Your task to perform on an android device: Open Google Image 0: 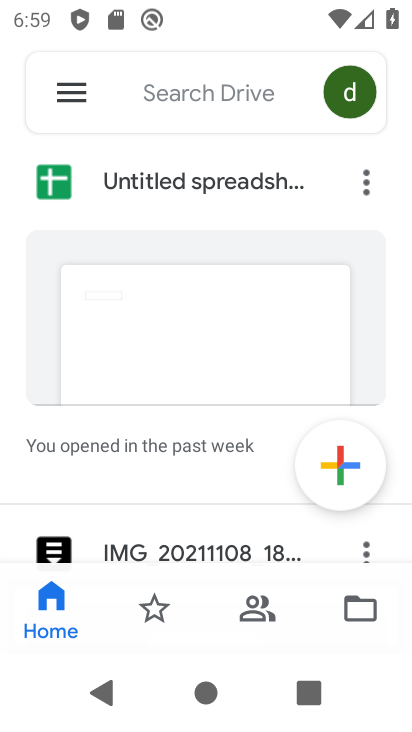
Step 0: press home button
Your task to perform on an android device: Open Google Image 1: 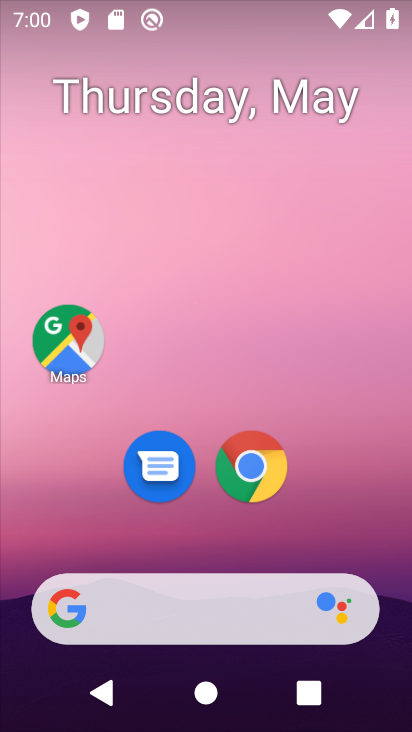
Step 1: click (52, 598)
Your task to perform on an android device: Open Google Image 2: 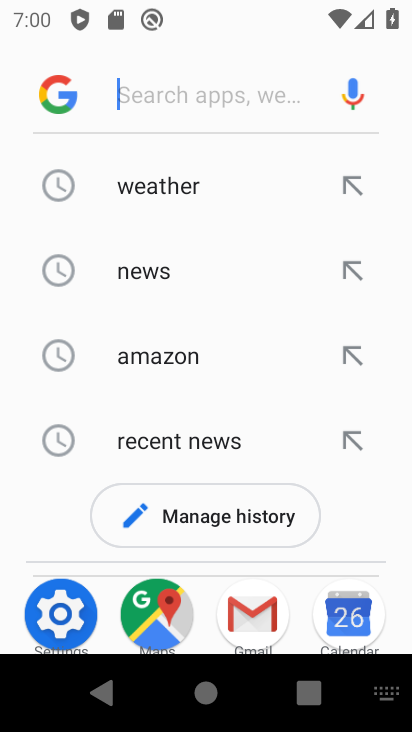
Step 2: click (56, 95)
Your task to perform on an android device: Open Google Image 3: 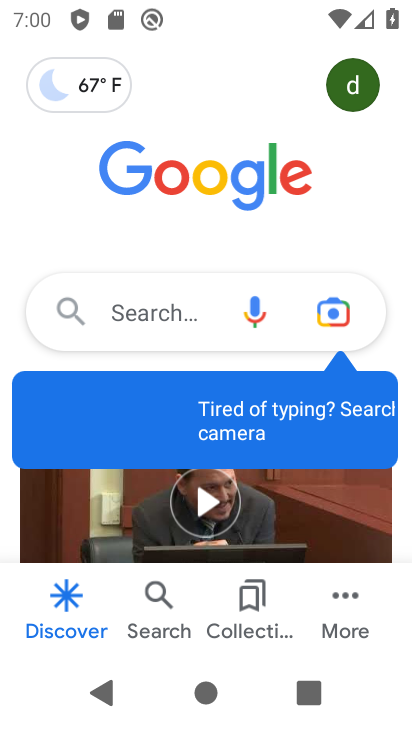
Step 3: task complete